Your task to perform on an android device: change the upload size in google photos Image 0: 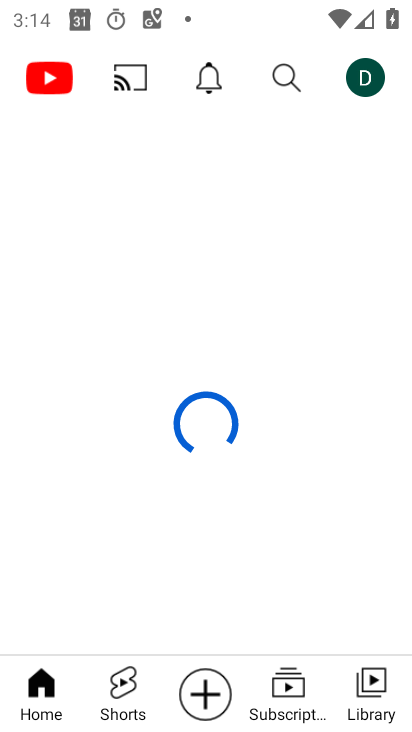
Step 0: press home button
Your task to perform on an android device: change the upload size in google photos Image 1: 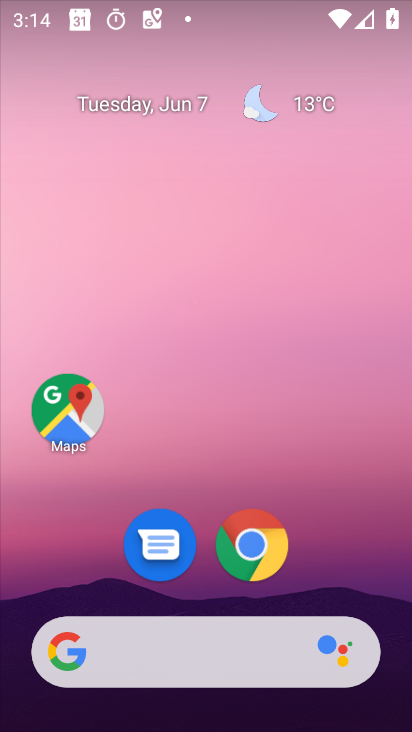
Step 1: drag from (345, 590) to (207, 42)
Your task to perform on an android device: change the upload size in google photos Image 2: 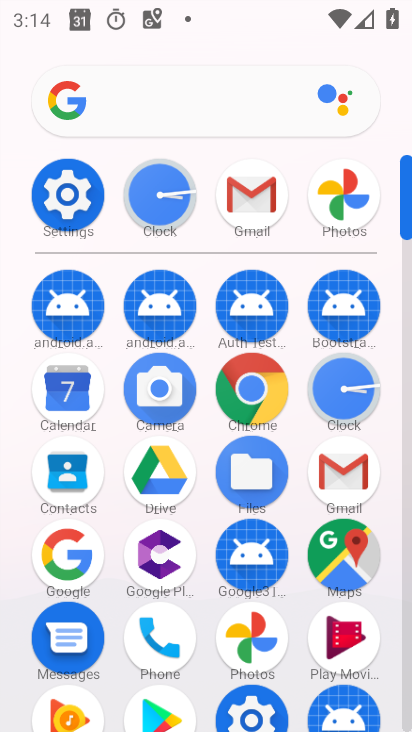
Step 2: click (246, 619)
Your task to perform on an android device: change the upload size in google photos Image 3: 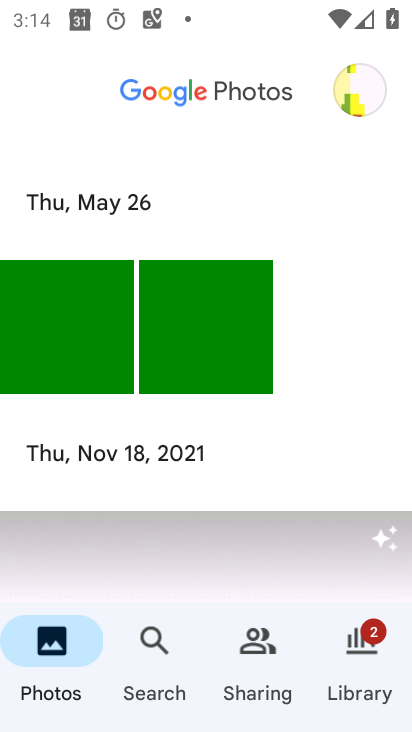
Step 3: click (356, 87)
Your task to perform on an android device: change the upload size in google photos Image 4: 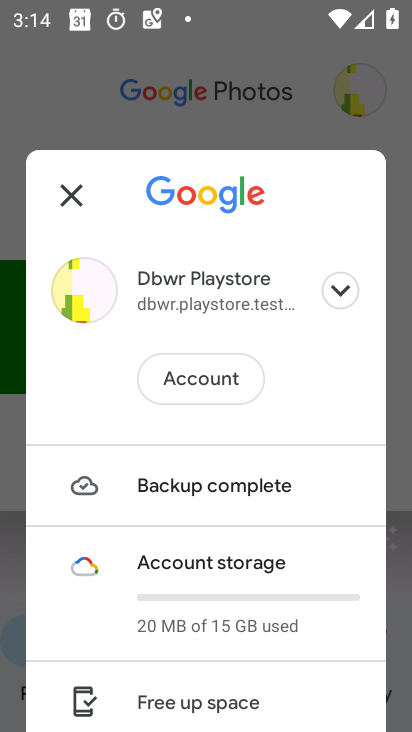
Step 4: drag from (215, 626) to (238, 191)
Your task to perform on an android device: change the upload size in google photos Image 5: 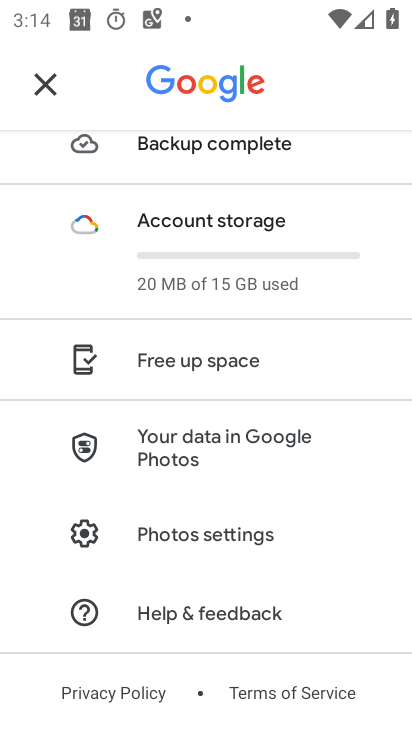
Step 5: click (229, 548)
Your task to perform on an android device: change the upload size in google photos Image 6: 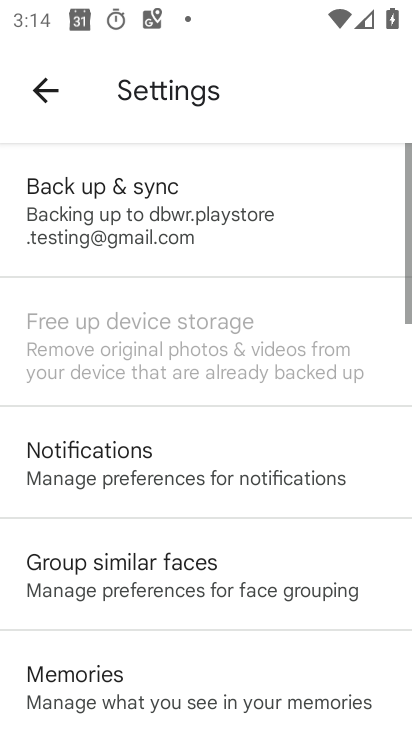
Step 6: click (163, 197)
Your task to perform on an android device: change the upload size in google photos Image 7: 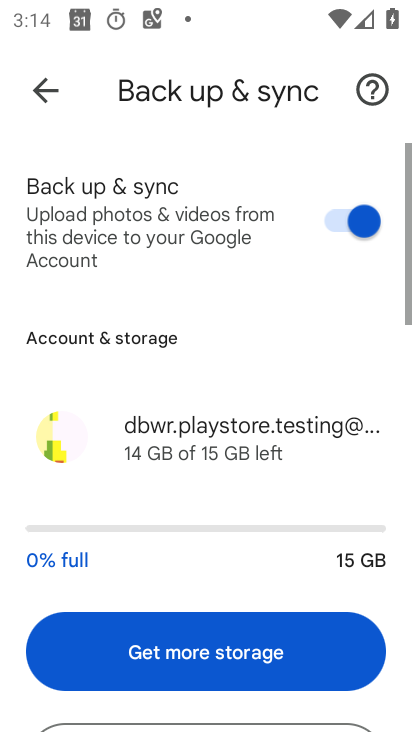
Step 7: drag from (206, 547) to (227, 73)
Your task to perform on an android device: change the upload size in google photos Image 8: 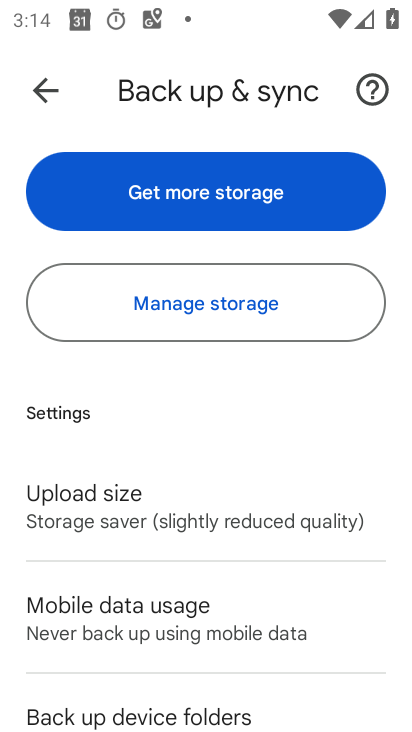
Step 8: click (204, 528)
Your task to perform on an android device: change the upload size in google photos Image 9: 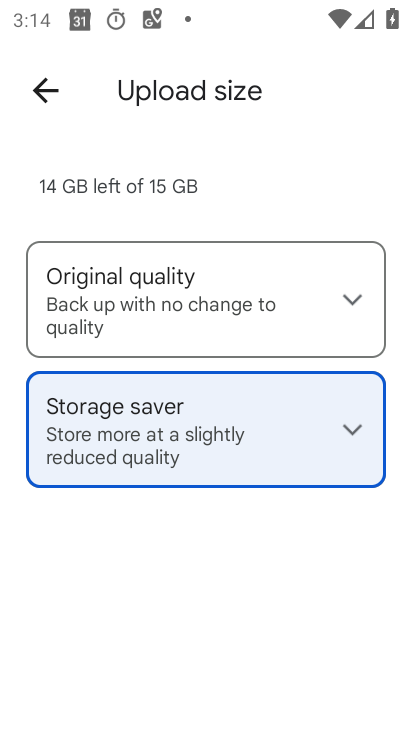
Step 9: click (221, 313)
Your task to perform on an android device: change the upload size in google photos Image 10: 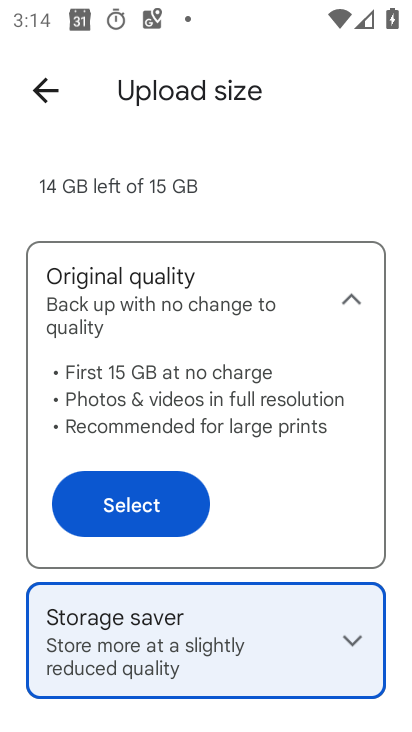
Step 10: click (102, 517)
Your task to perform on an android device: change the upload size in google photos Image 11: 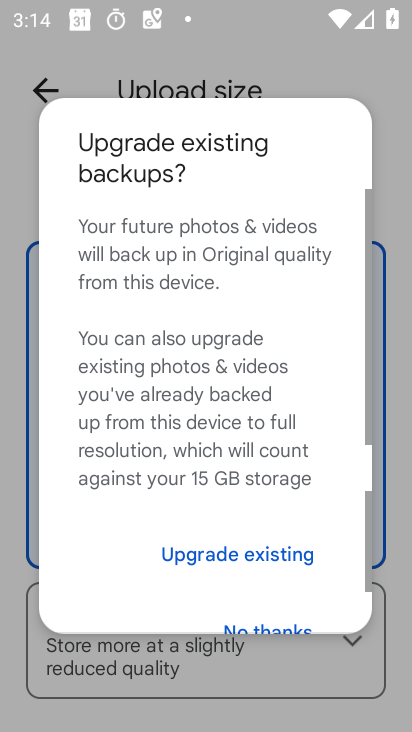
Step 11: task complete